Your task to perform on an android device: Do I have any events this weekend? Image 0: 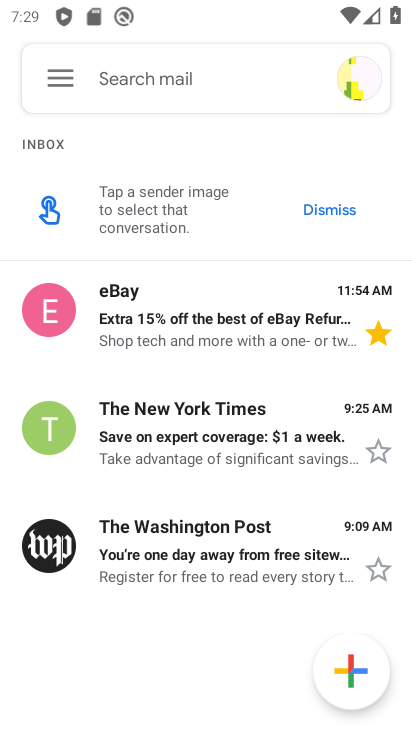
Step 0: press home button
Your task to perform on an android device: Do I have any events this weekend? Image 1: 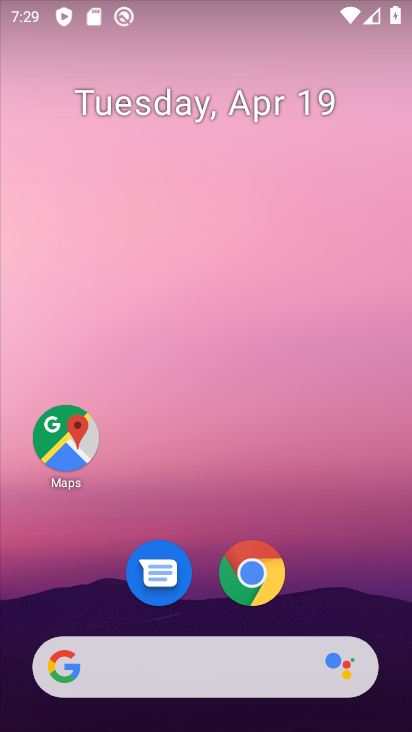
Step 1: drag from (259, 696) to (249, 388)
Your task to perform on an android device: Do I have any events this weekend? Image 2: 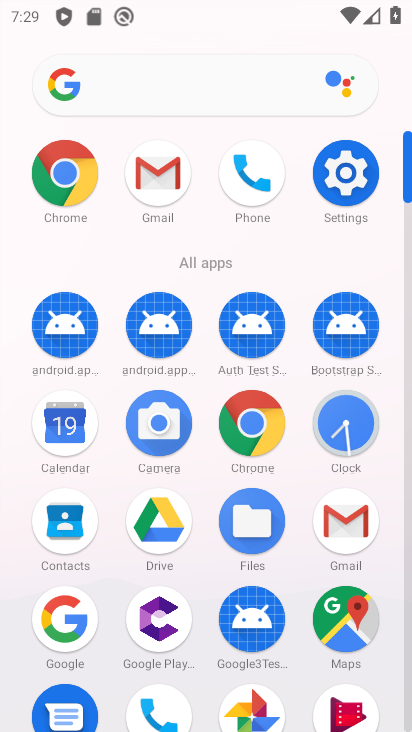
Step 2: click (67, 431)
Your task to perform on an android device: Do I have any events this weekend? Image 3: 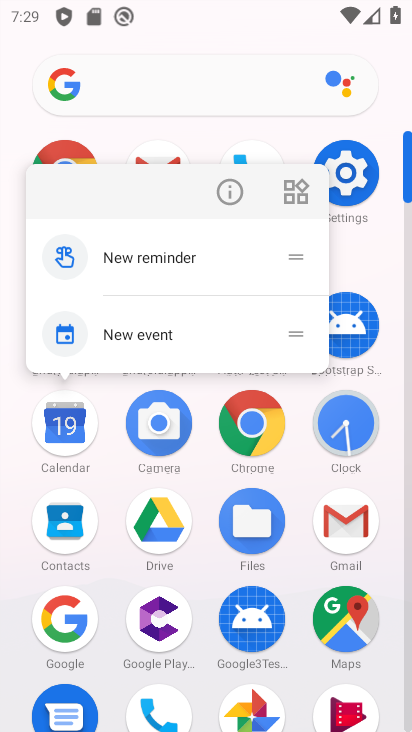
Step 3: click (67, 431)
Your task to perform on an android device: Do I have any events this weekend? Image 4: 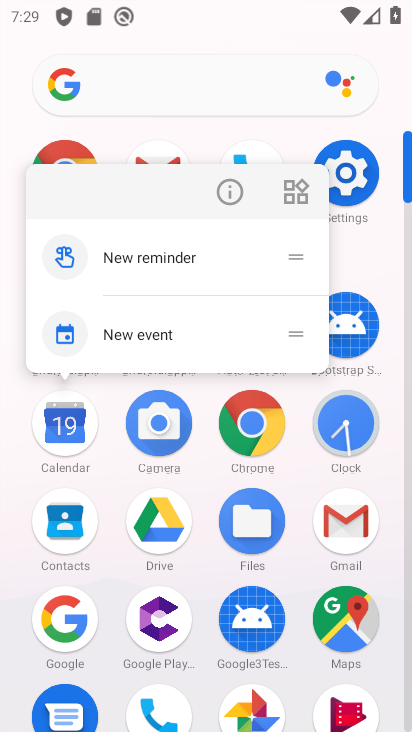
Step 4: click (67, 431)
Your task to perform on an android device: Do I have any events this weekend? Image 5: 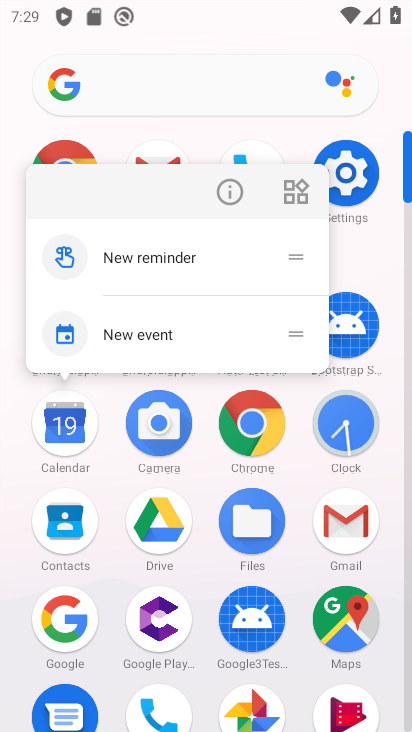
Step 5: click (67, 431)
Your task to perform on an android device: Do I have any events this weekend? Image 6: 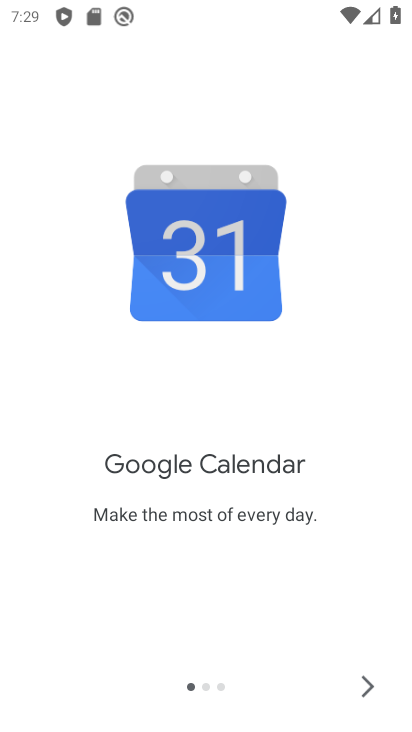
Step 6: click (360, 681)
Your task to perform on an android device: Do I have any events this weekend? Image 7: 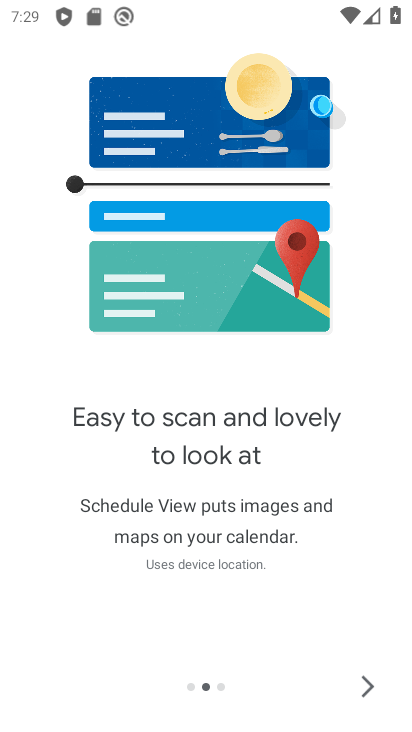
Step 7: click (370, 676)
Your task to perform on an android device: Do I have any events this weekend? Image 8: 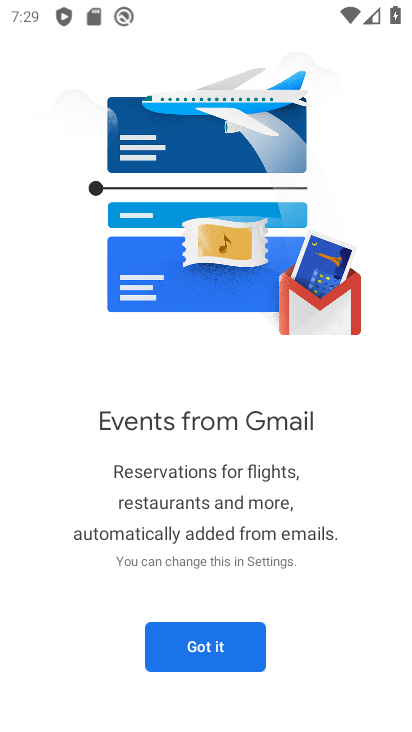
Step 8: click (215, 639)
Your task to perform on an android device: Do I have any events this weekend? Image 9: 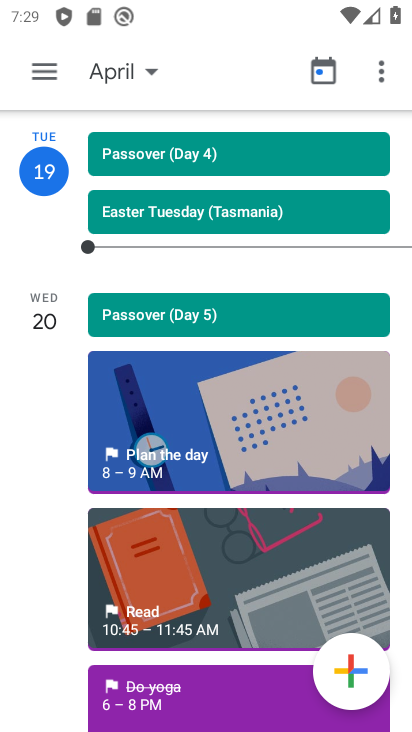
Step 9: click (58, 64)
Your task to perform on an android device: Do I have any events this weekend? Image 10: 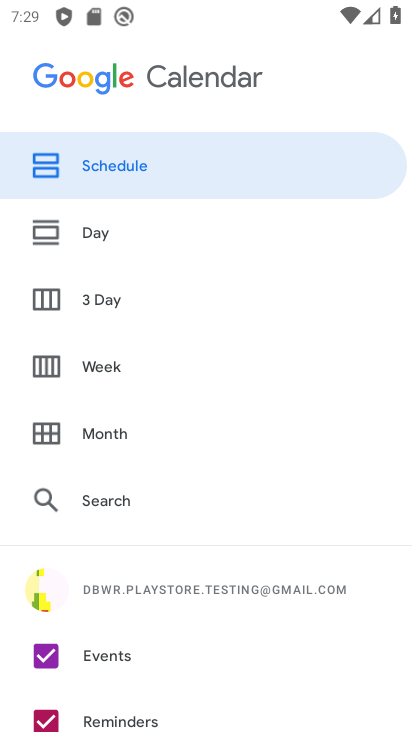
Step 10: click (133, 169)
Your task to perform on an android device: Do I have any events this weekend? Image 11: 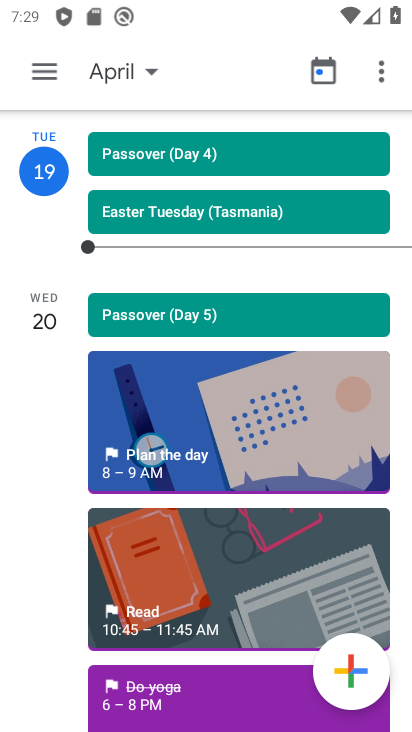
Step 11: task complete